Your task to perform on an android device: set an alarm Image 0: 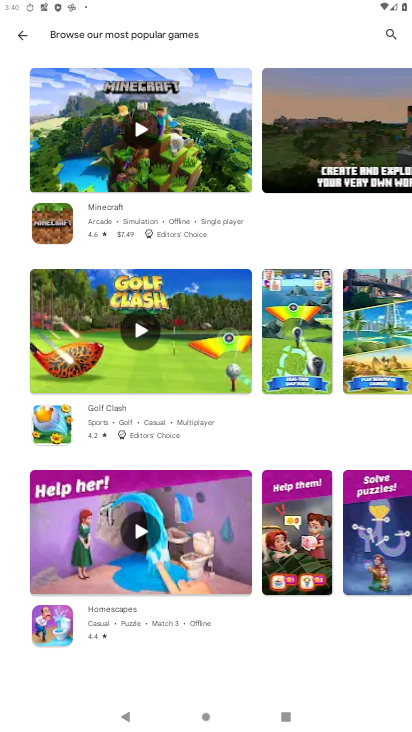
Step 0: press home button
Your task to perform on an android device: set an alarm Image 1: 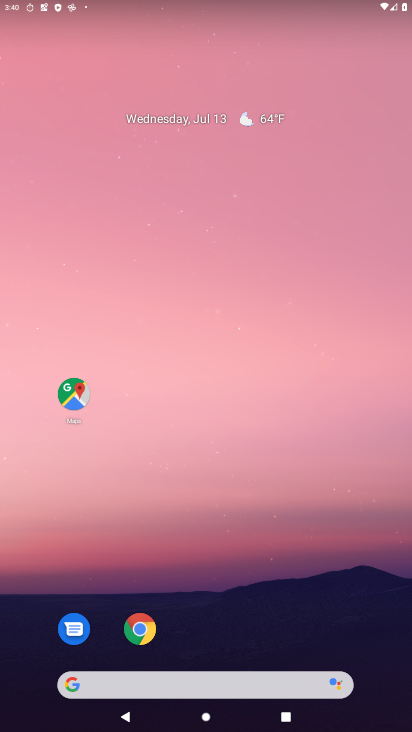
Step 1: drag from (256, 688) to (326, 54)
Your task to perform on an android device: set an alarm Image 2: 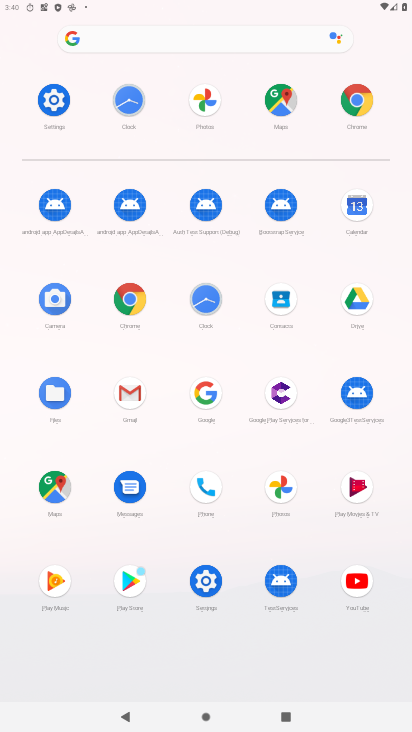
Step 2: click (210, 303)
Your task to perform on an android device: set an alarm Image 3: 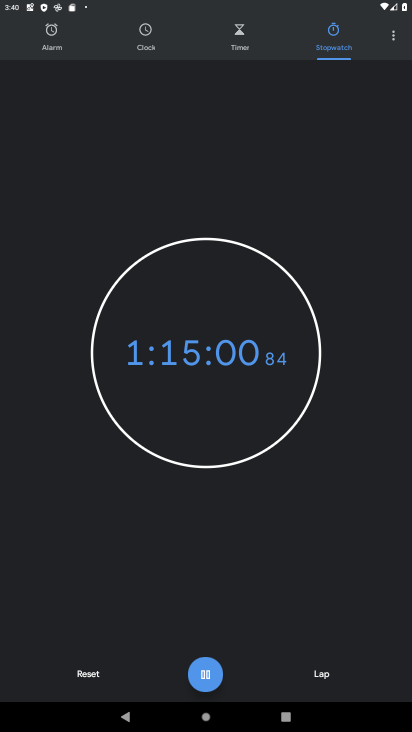
Step 3: click (54, 45)
Your task to perform on an android device: set an alarm Image 4: 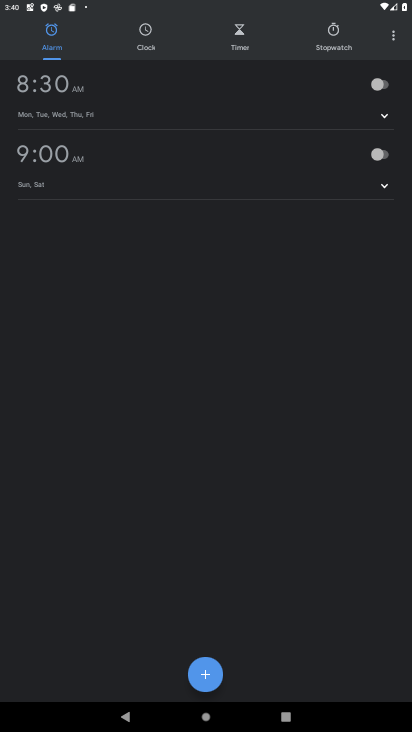
Step 4: click (382, 88)
Your task to perform on an android device: set an alarm Image 5: 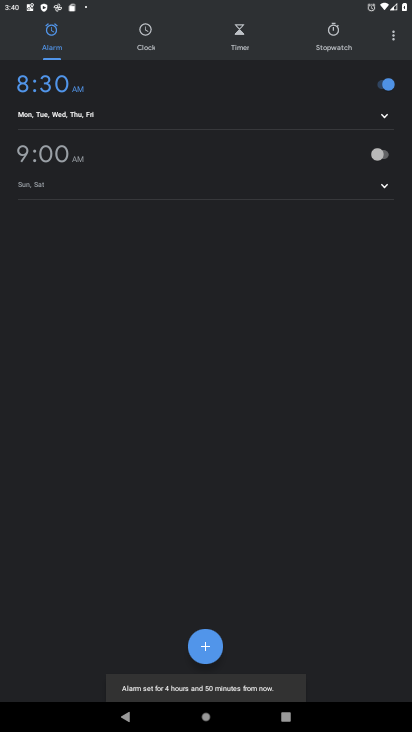
Step 5: task complete